Your task to perform on an android device: turn on data saver in the chrome app Image 0: 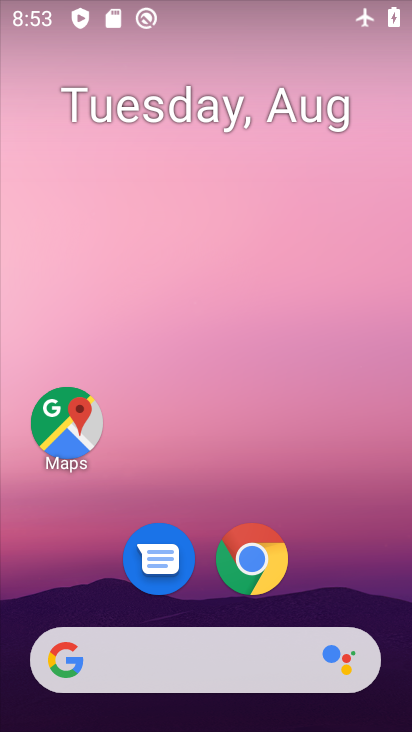
Step 0: drag from (370, 542) to (328, 12)
Your task to perform on an android device: turn on data saver in the chrome app Image 1: 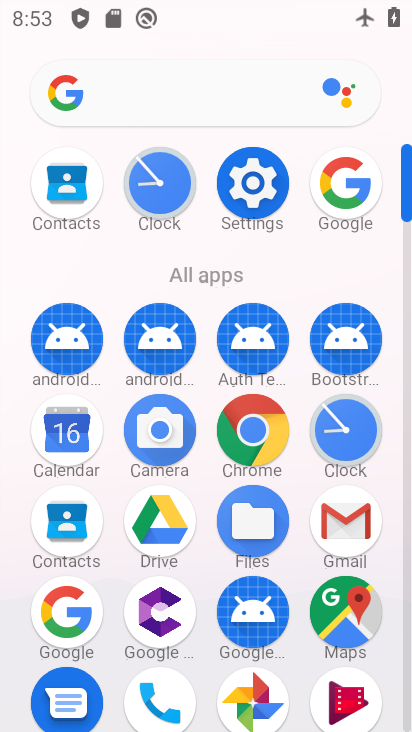
Step 1: click (243, 434)
Your task to perform on an android device: turn on data saver in the chrome app Image 2: 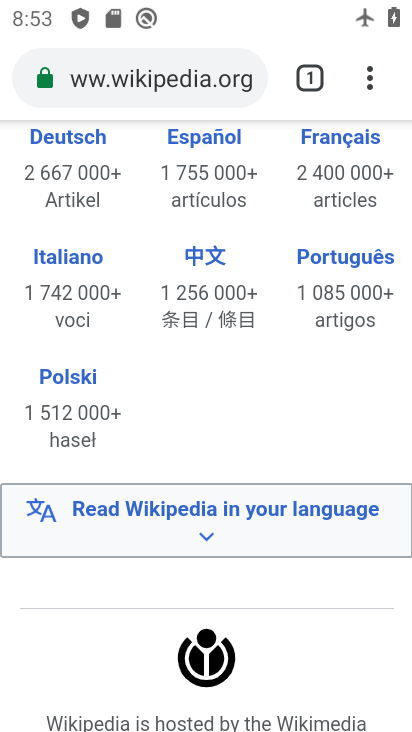
Step 2: drag from (370, 85) to (119, 608)
Your task to perform on an android device: turn on data saver in the chrome app Image 3: 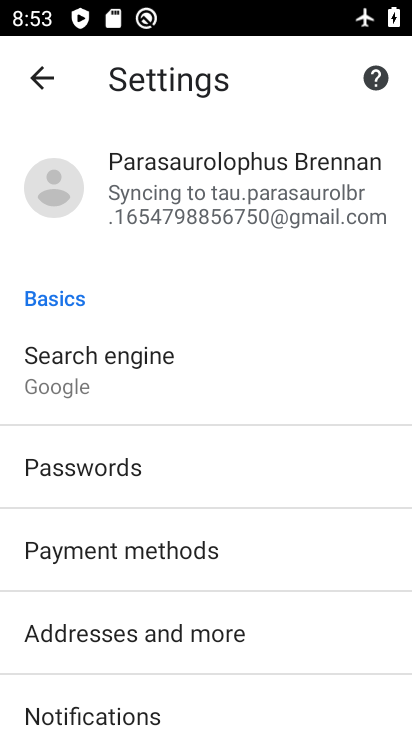
Step 3: drag from (315, 586) to (294, 209)
Your task to perform on an android device: turn on data saver in the chrome app Image 4: 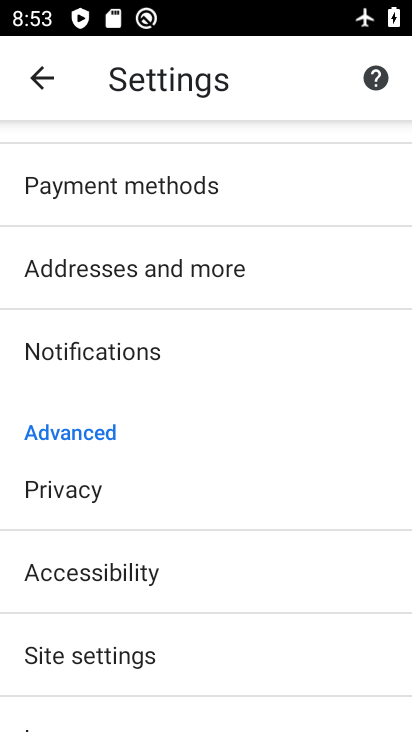
Step 4: drag from (154, 694) to (182, 402)
Your task to perform on an android device: turn on data saver in the chrome app Image 5: 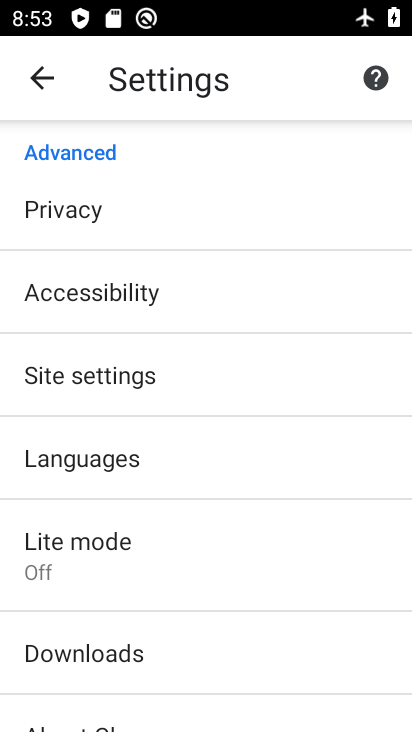
Step 5: click (74, 536)
Your task to perform on an android device: turn on data saver in the chrome app Image 6: 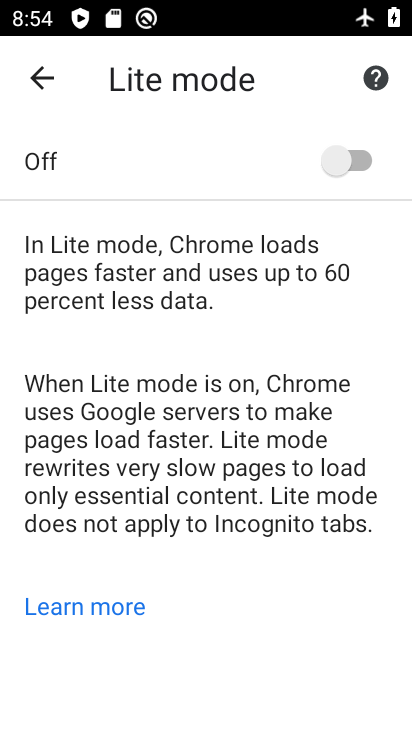
Step 6: click (351, 160)
Your task to perform on an android device: turn on data saver in the chrome app Image 7: 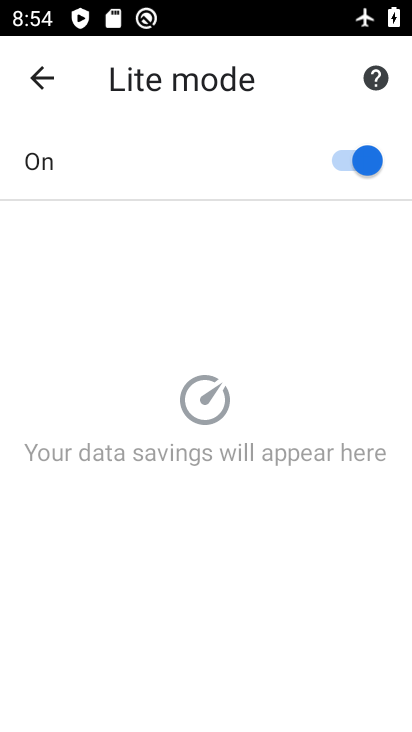
Step 7: task complete